Your task to perform on an android device: turn on airplane mode Image 0: 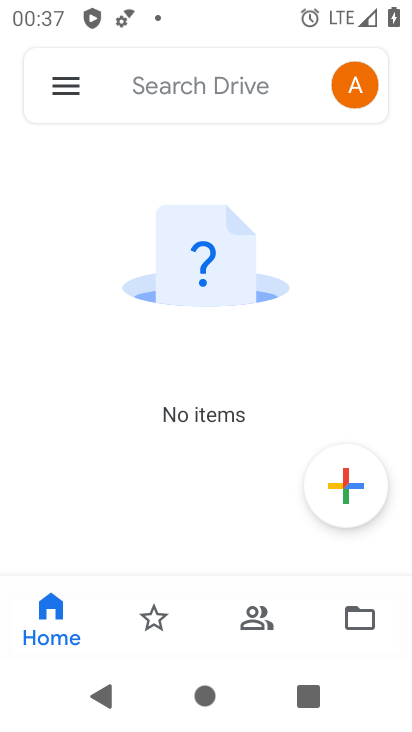
Step 0: press home button
Your task to perform on an android device: turn on airplane mode Image 1: 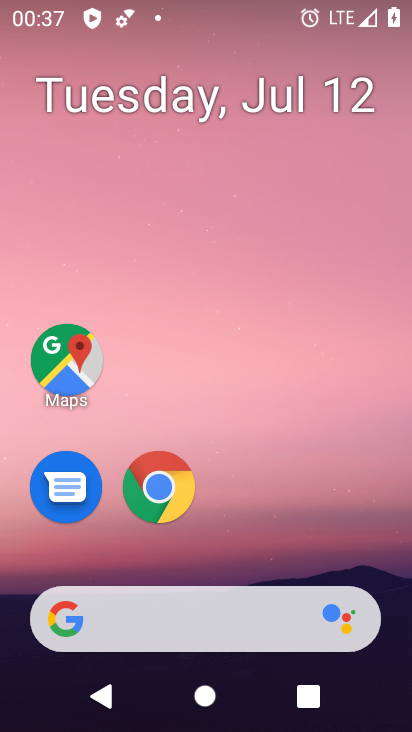
Step 1: drag from (338, 548) to (317, 149)
Your task to perform on an android device: turn on airplane mode Image 2: 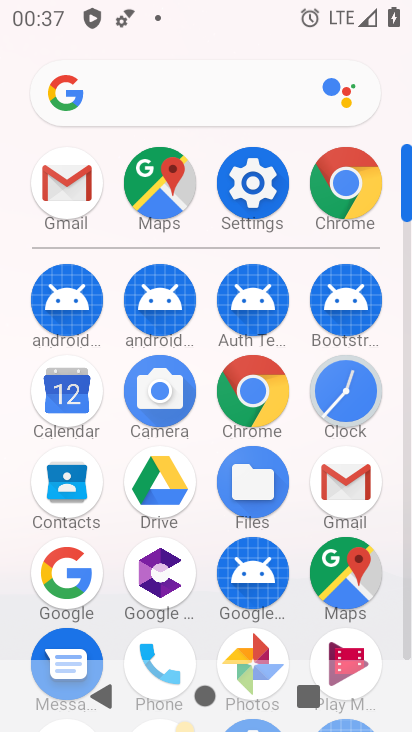
Step 2: click (265, 189)
Your task to perform on an android device: turn on airplane mode Image 3: 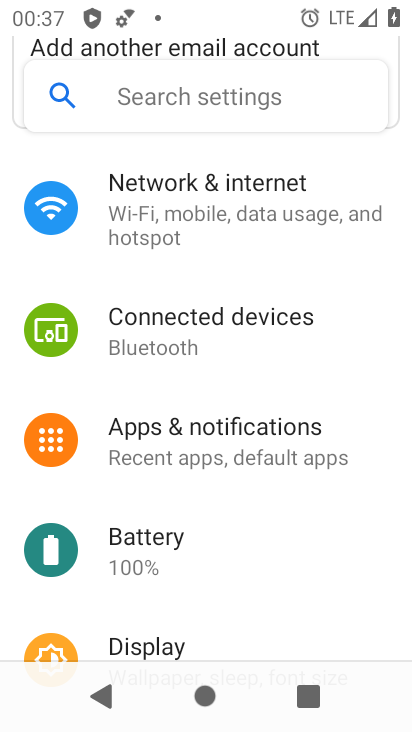
Step 3: drag from (335, 278) to (341, 414)
Your task to perform on an android device: turn on airplane mode Image 4: 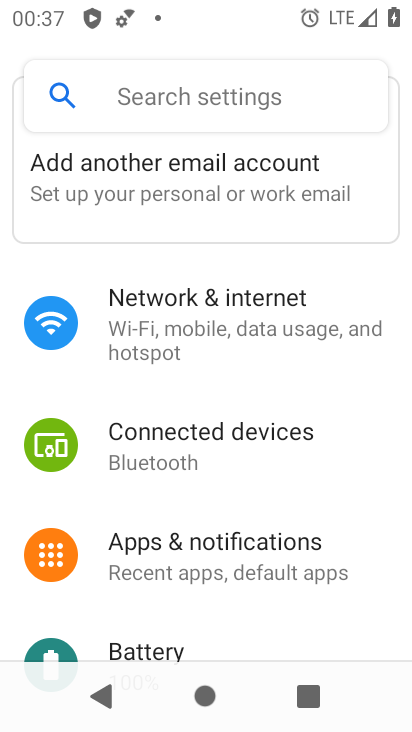
Step 4: drag from (346, 279) to (351, 456)
Your task to perform on an android device: turn on airplane mode Image 5: 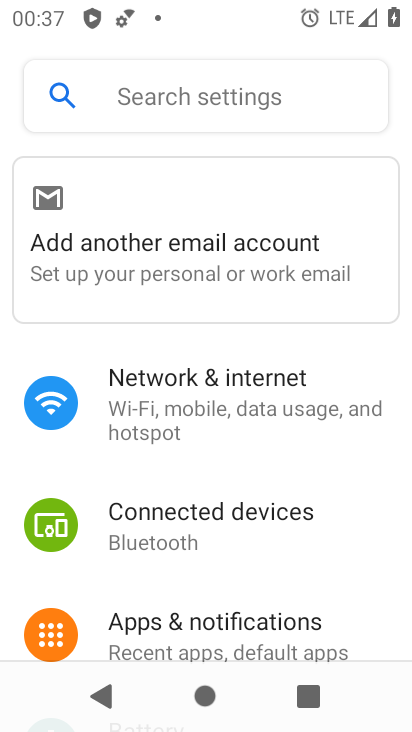
Step 5: drag from (357, 540) to (355, 395)
Your task to perform on an android device: turn on airplane mode Image 6: 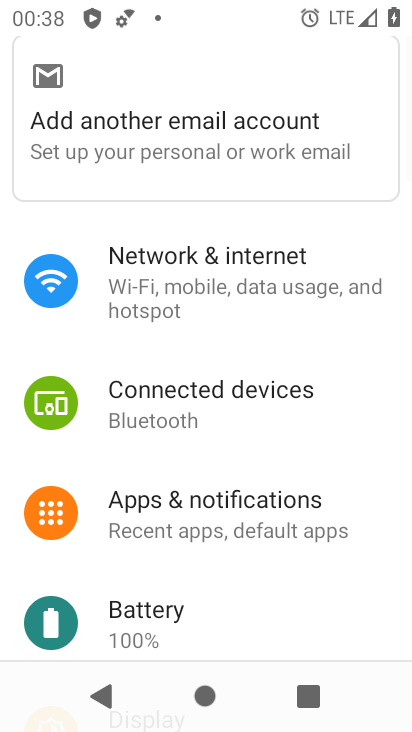
Step 6: drag from (360, 615) to (355, 425)
Your task to perform on an android device: turn on airplane mode Image 7: 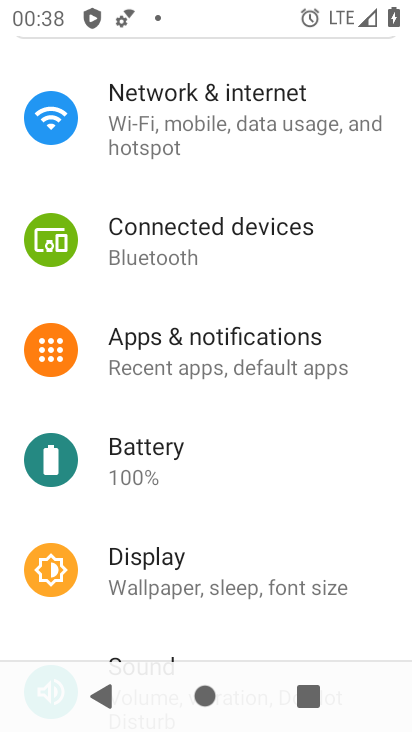
Step 7: drag from (352, 608) to (354, 453)
Your task to perform on an android device: turn on airplane mode Image 8: 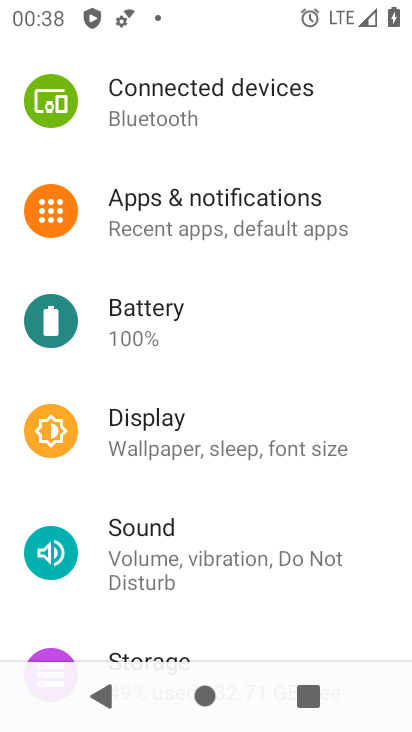
Step 8: drag from (351, 595) to (351, 347)
Your task to perform on an android device: turn on airplane mode Image 9: 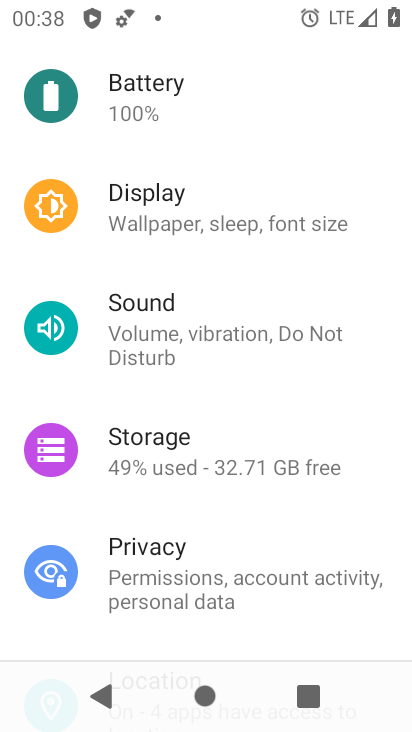
Step 9: drag from (361, 274) to (362, 435)
Your task to perform on an android device: turn on airplane mode Image 10: 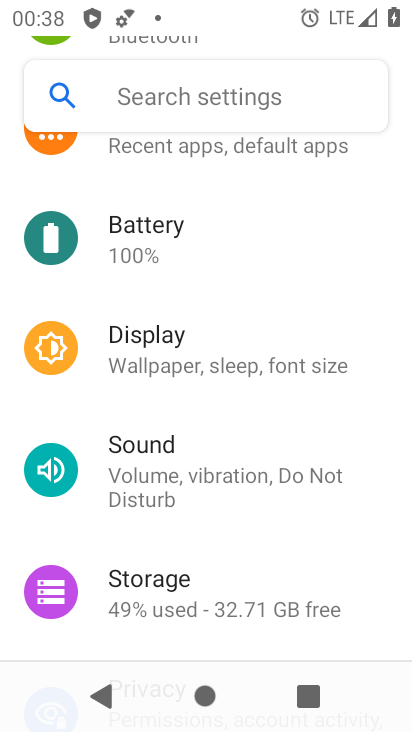
Step 10: drag from (359, 277) to (363, 467)
Your task to perform on an android device: turn on airplane mode Image 11: 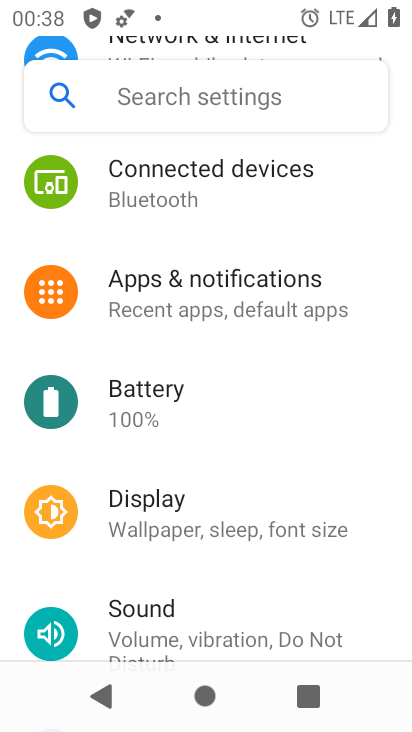
Step 11: drag from (342, 256) to (354, 456)
Your task to perform on an android device: turn on airplane mode Image 12: 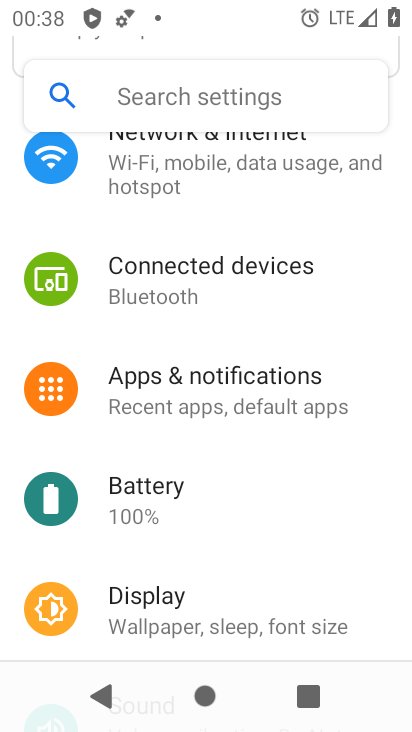
Step 12: drag from (348, 222) to (340, 390)
Your task to perform on an android device: turn on airplane mode Image 13: 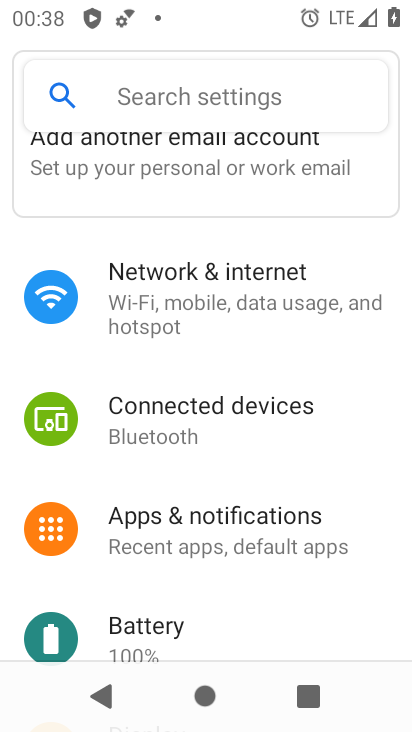
Step 13: click (256, 287)
Your task to perform on an android device: turn on airplane mode Image 14: 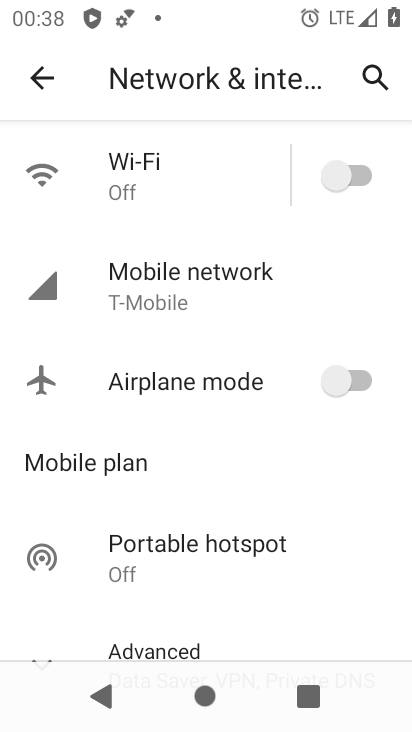
Step 14: click (347, 389)
Your task to perform on an android device: turn on airplane mode Image 15: 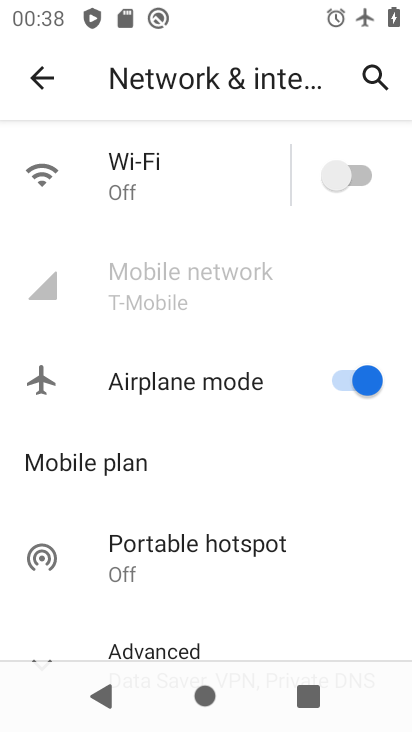
Step 15: task complete